Your task to perform on an android device: turn pop-ups off in chrome Image 0: 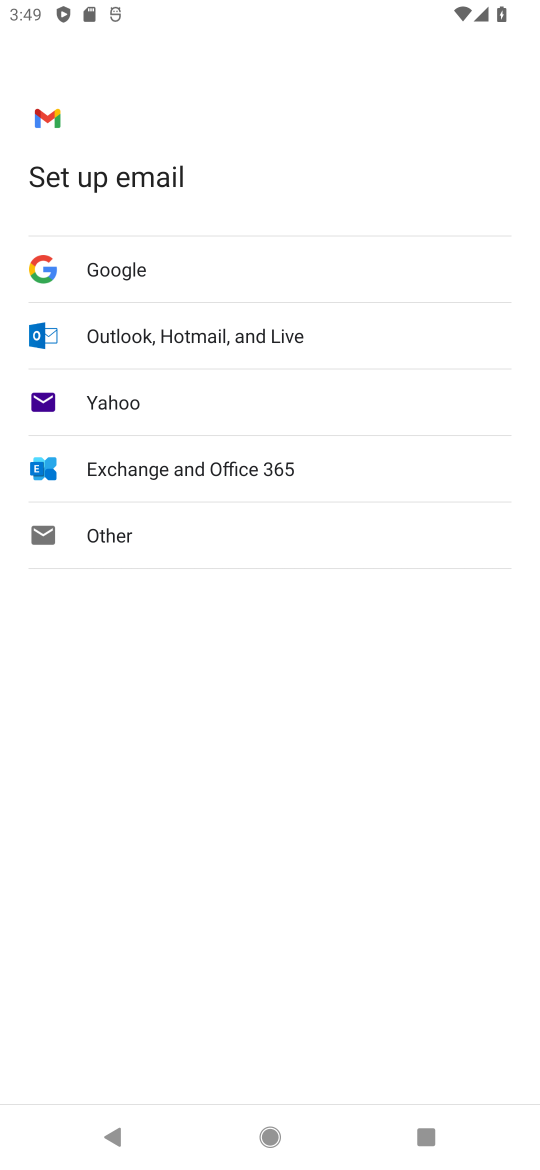
Step 0: press home button
Your task to perform on an android device: turn pop-ups off in chrome Image 1: 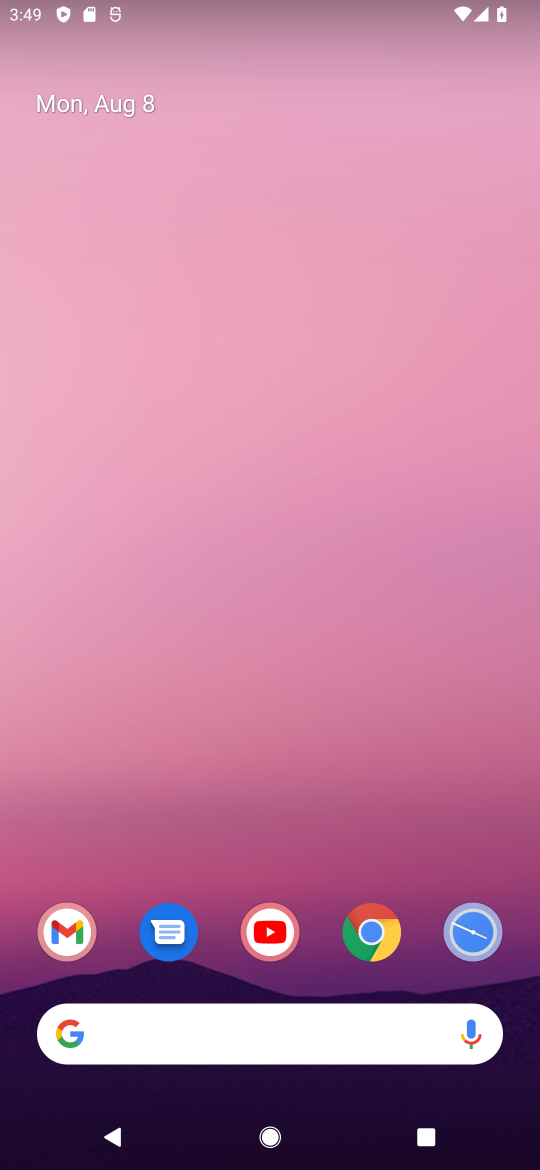
Step 1: click (384, 929)
Your task to perform on an android device: turn pop-ups off in chrome Image 2: 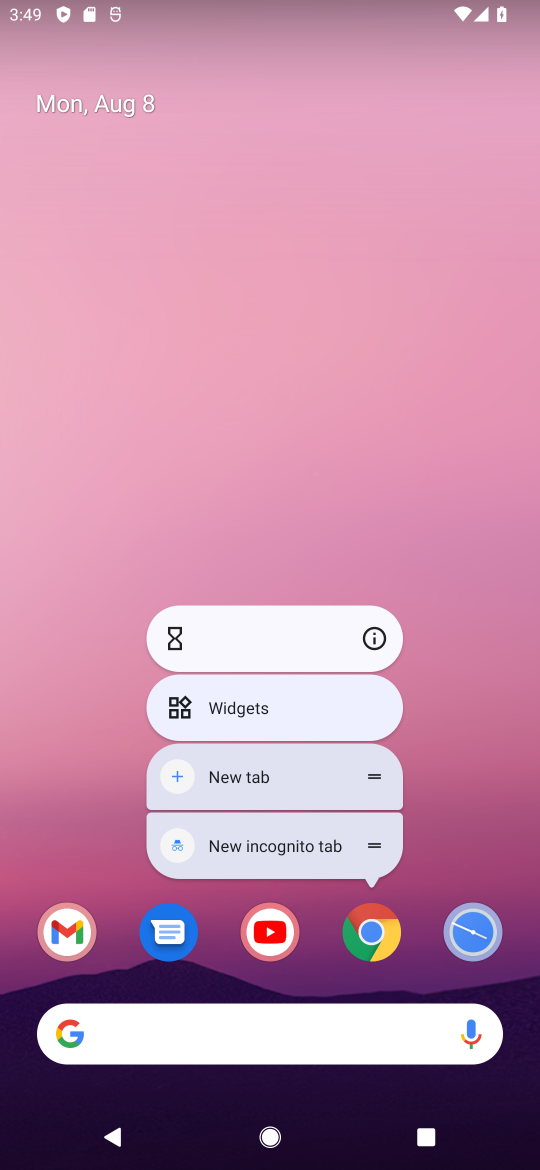
Step 2: click (384, 929)
Your task to perform on an android device: turn pop-ups off in chrome Image 3: 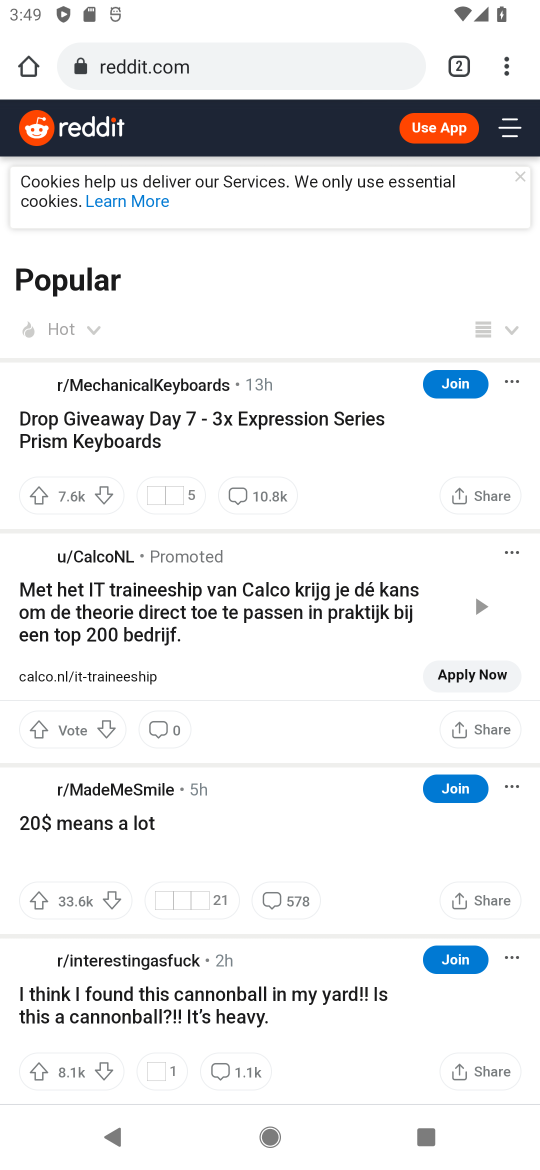
Step 3: click (384, 929)
Your task to perform on an android device: turn pop-ups off in chrome Image 4: 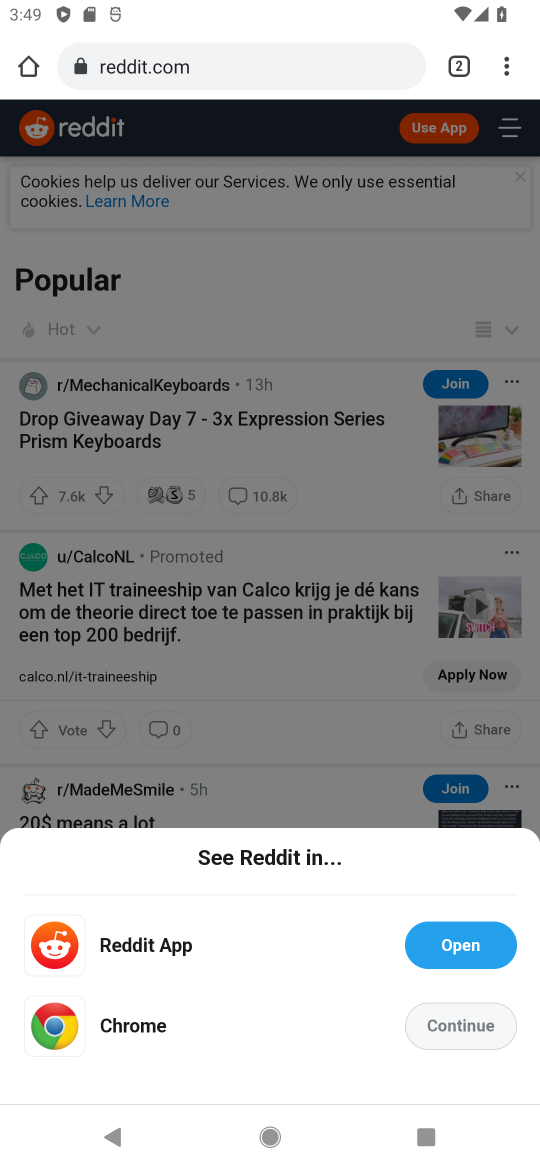
Step 4: click (507, 62)
Your task to perform on an android device: turn pop-ups off in chrome Image 5: 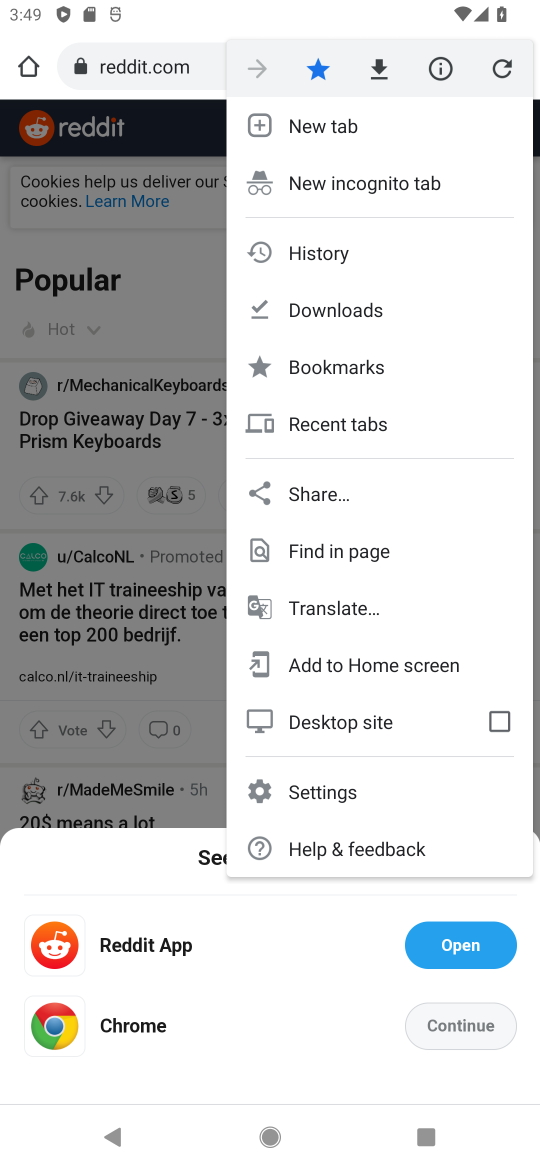
Step 5: click (349, 805)
Your task to perform on an android device: turn pop-ups off in chrome Image 6: 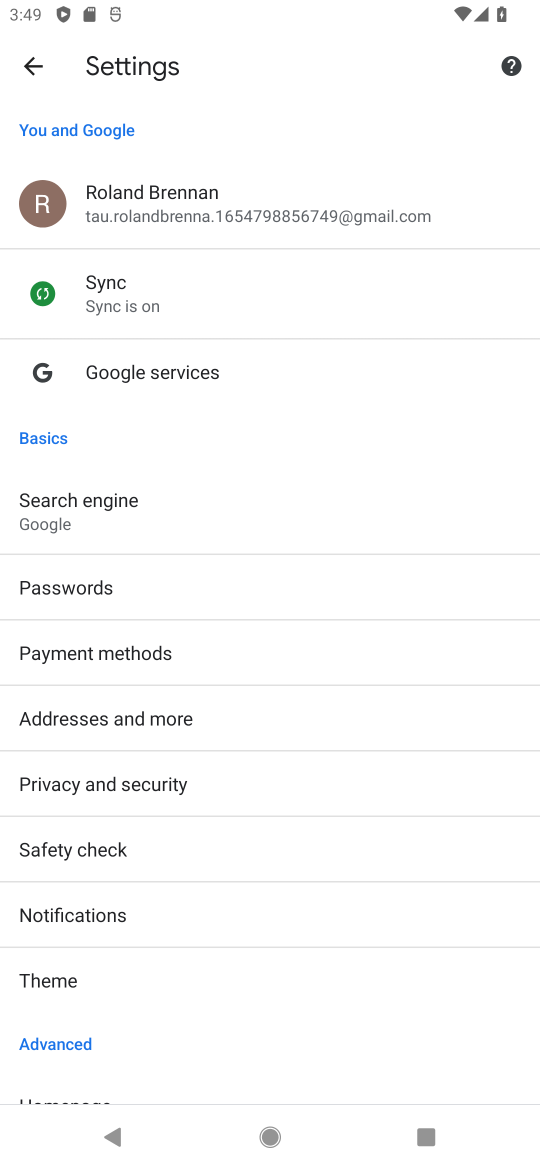
Step 6: drag from (224, 1009) to (299, 260)
Your task to perform on an android device: turn pop-ups off in chrome Image 7: 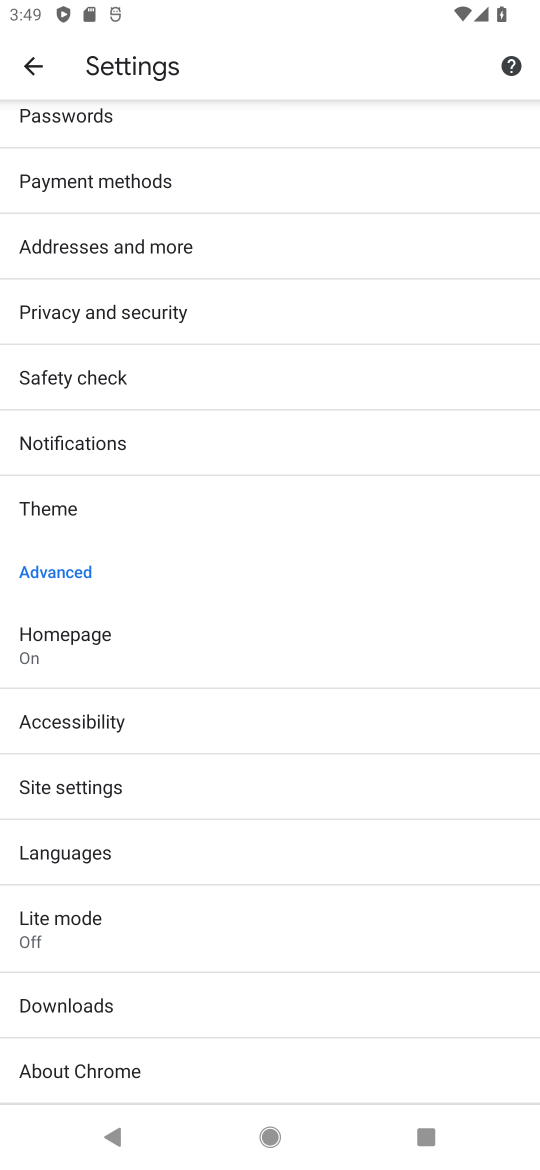
Step 7: click (138, 785)
Your task to perform on an android device: turn pop-ups off in chrome Image 8: 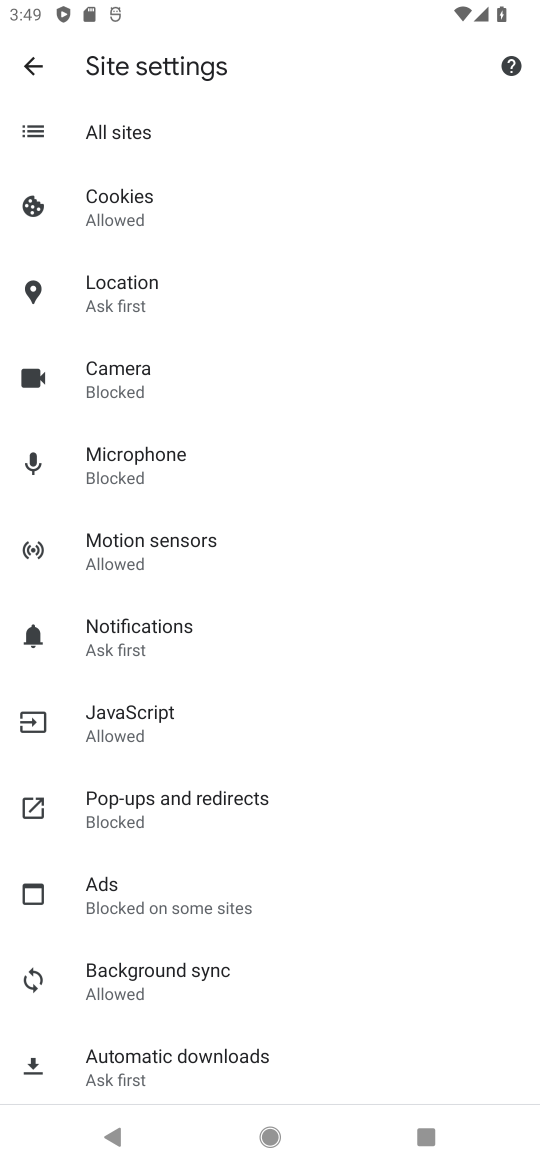
Step 8: click (178, 798)
Your task to perform on an android device: turn pop-ups off in chrome Image 9: 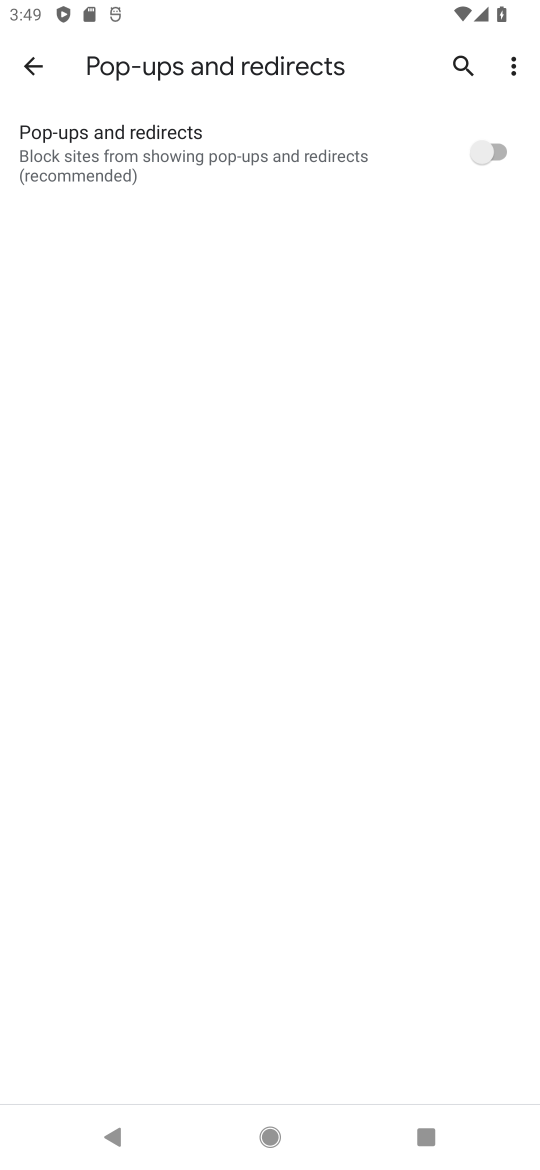
Step 9: task complete